Your task to perform on an android device: Search for pizza restaurants on Maps Image 0: 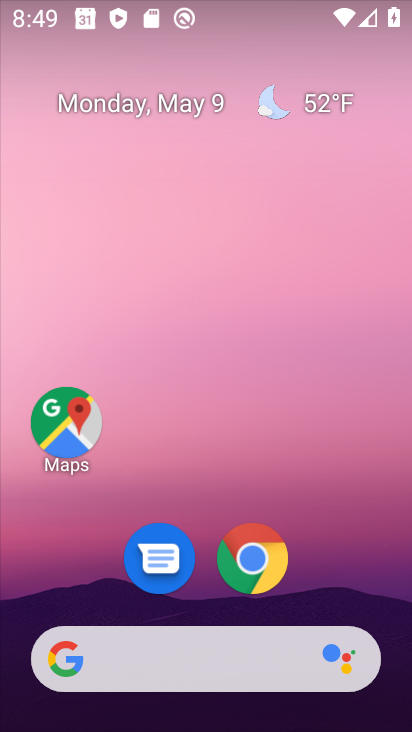
Step 0: click (70, 415)
Your task to perform on an android device: Search for pizza restaurants on Maps Image 1: 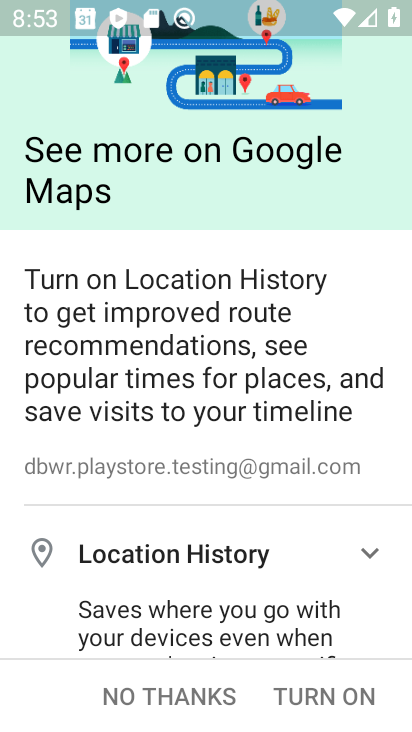
Step 1: click (167, 692)
Your task to perform on an android device: Search for pizza restaurants on Maps Image 2: 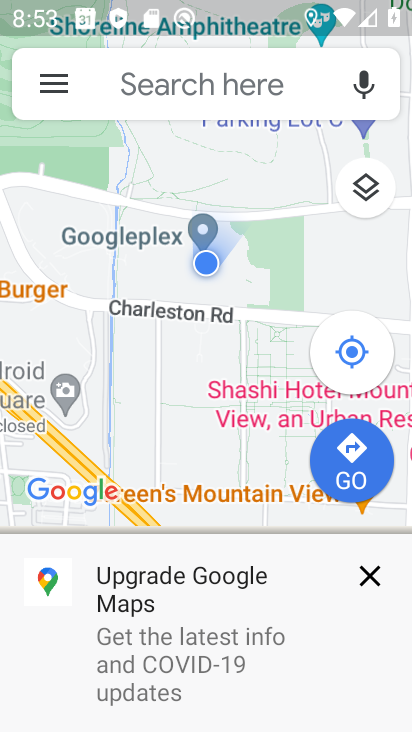
Step 2: click (141, 81)
Your task to perform on an android device: Search for pizza restaurants on Maps Image 3: 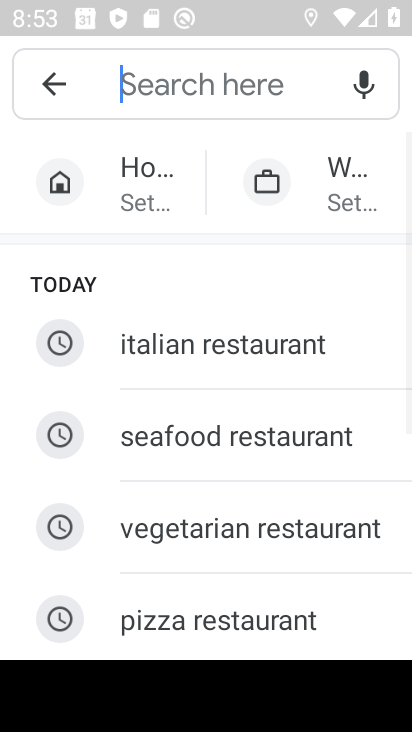
Step 3: click (183, 622)
Your task to perform on an android device: Search for pizza restaurants on Maps Image 4: 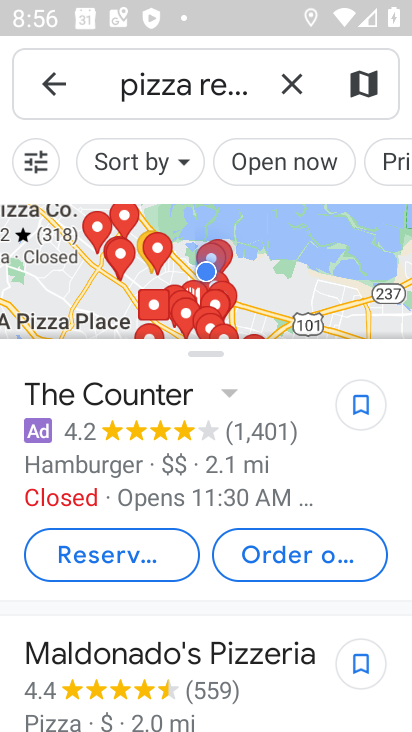
Step 4: task complete